Your task to perform on an android device: What's the price of the new iPhone Image 0: 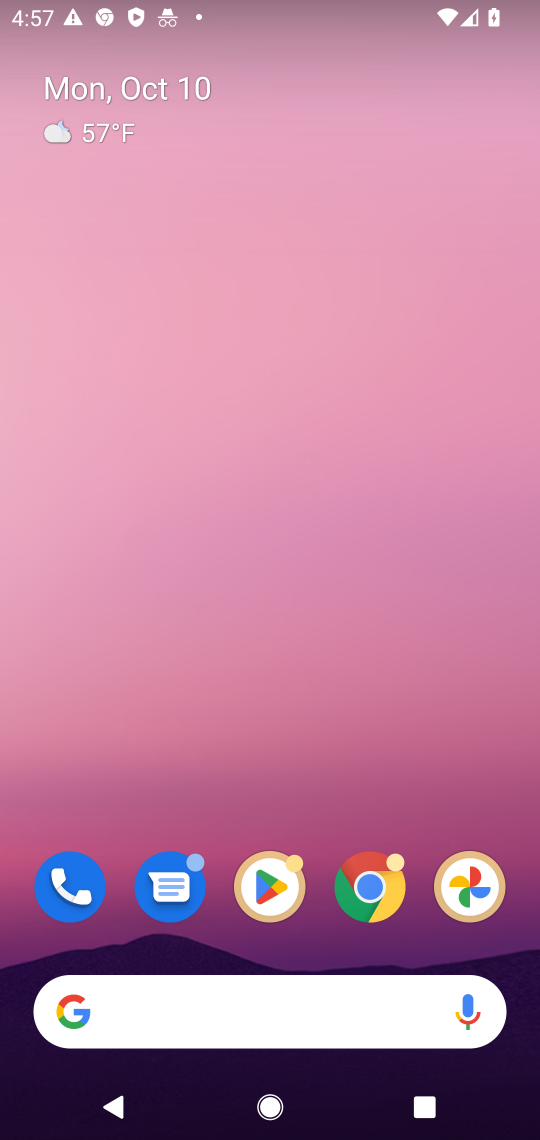
Step 0: click (376, 897)
Your task to perform on an android device: What's the price of the new iPhone Image 1: 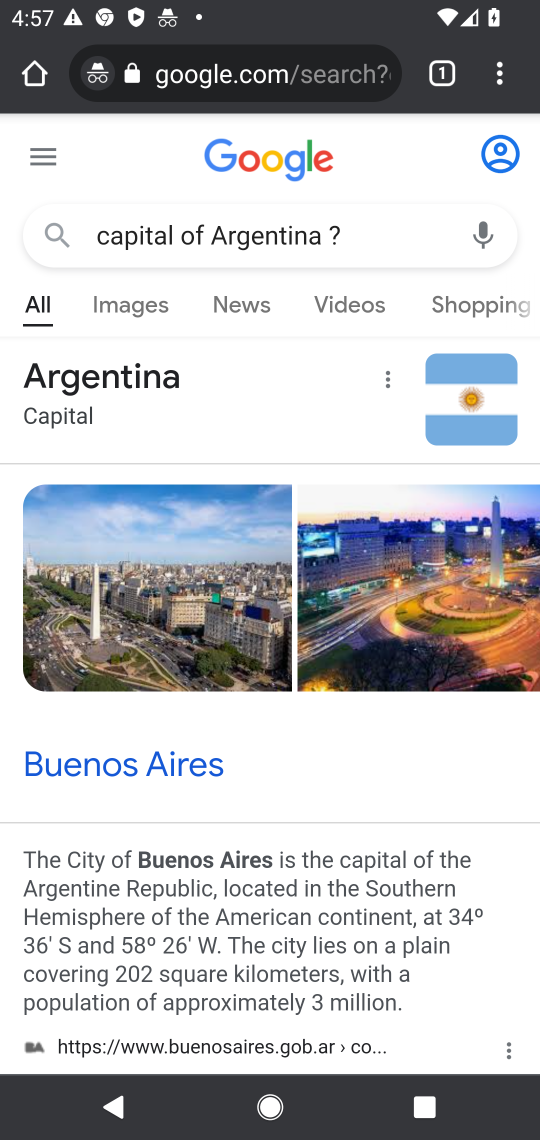
Step 1: click (284, 79)
Your task to perform on an android device: What's the price of the new iPhone Image 2: 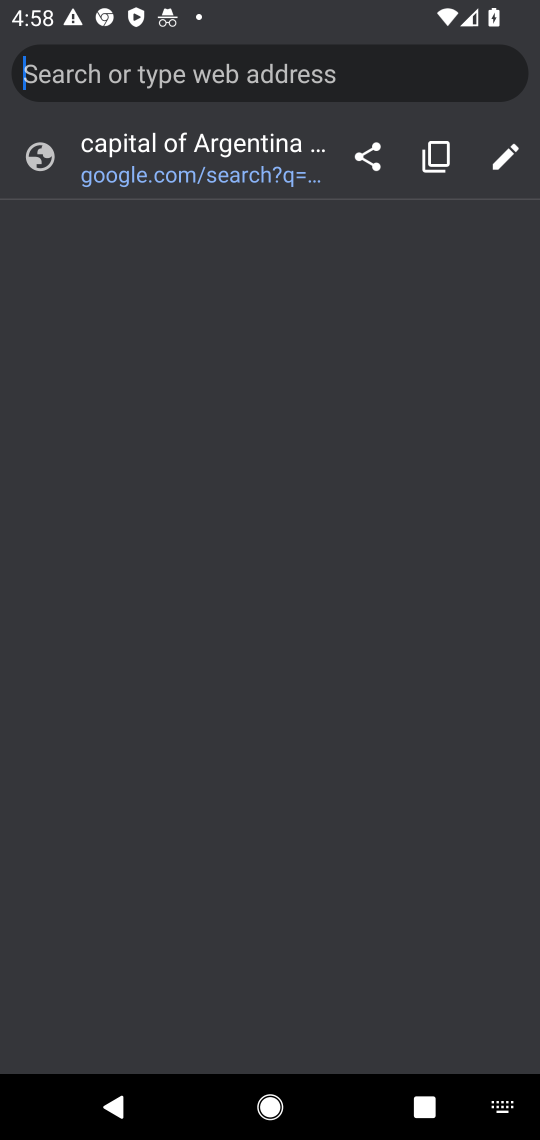
Step 2: type "price of the new iphone"
Your task to perform on an android device: What's the price of the new iPhone Image 3: 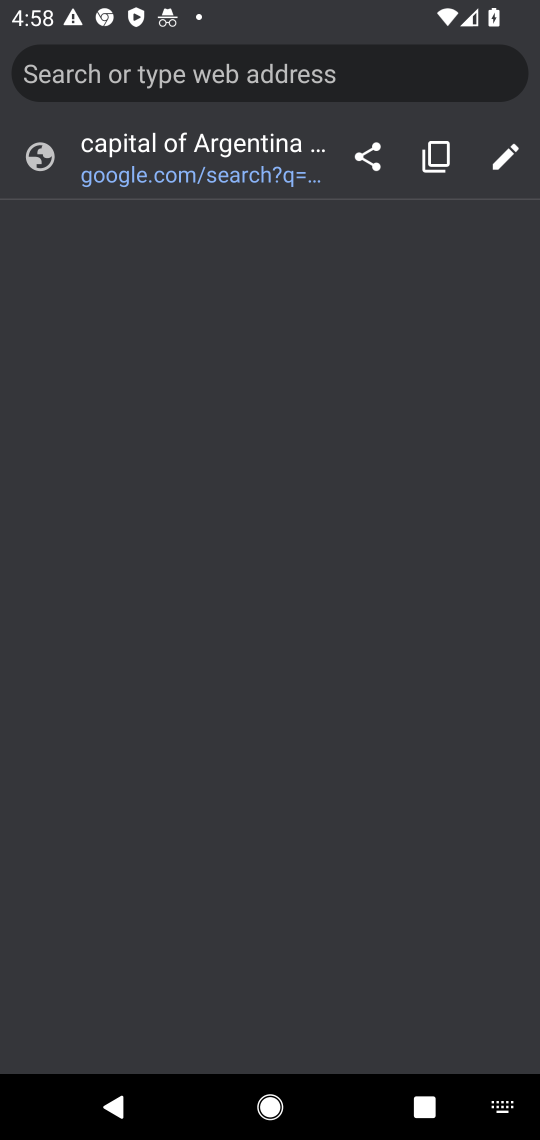
Step 3: click (230, 84)
Your task to perform on an android device: What's the price of the new iPhone Image 4: 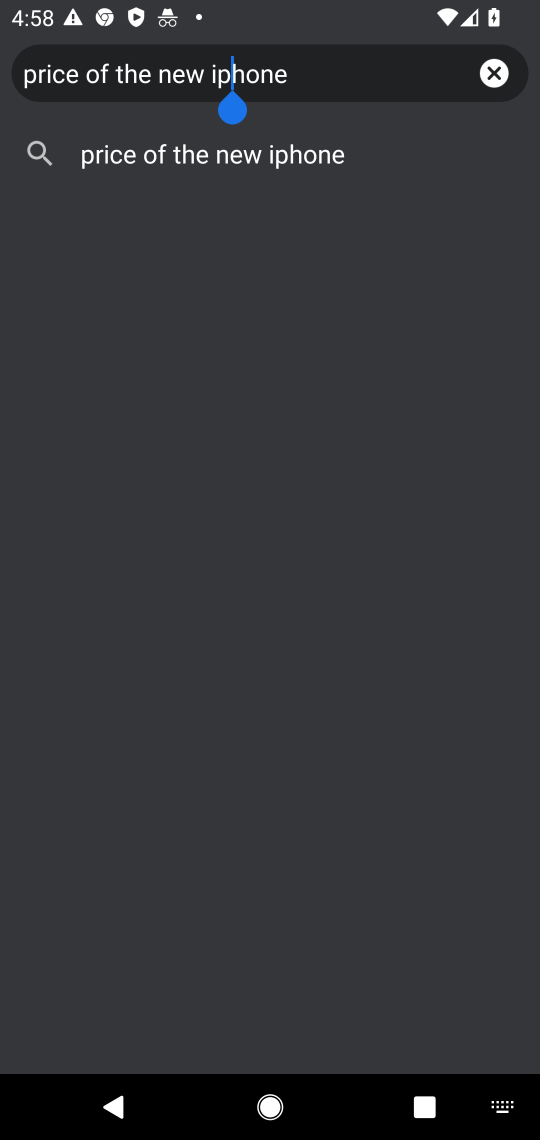
Step 4: click (227, 157)
Your task to perform on an android device: What's the price of the new iPhone Image 5: 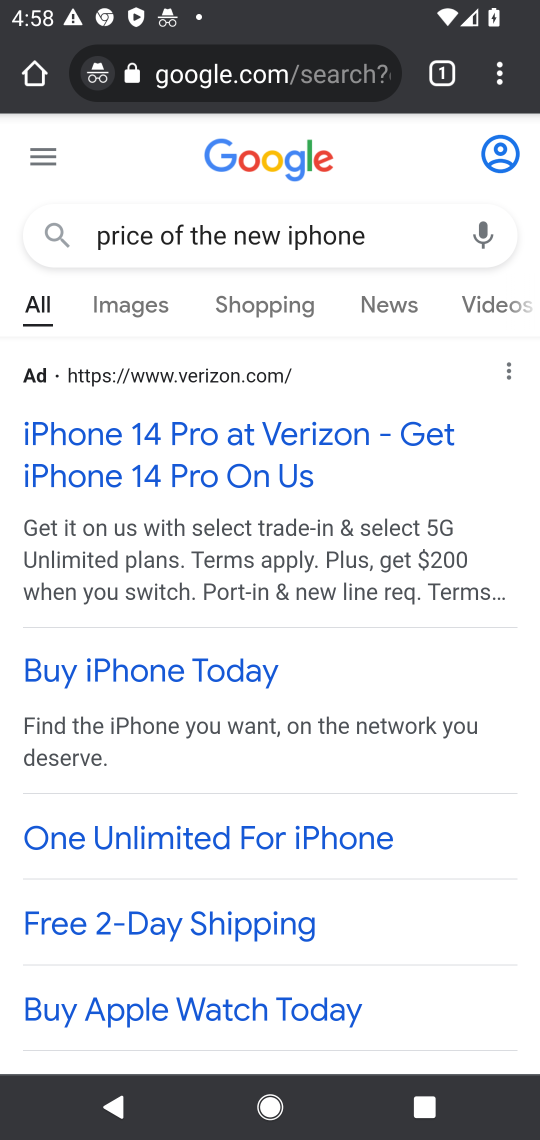
Step 5: click (307, 455)
Your task to perform on an android device: What's the price of the new iPhone Image 6: 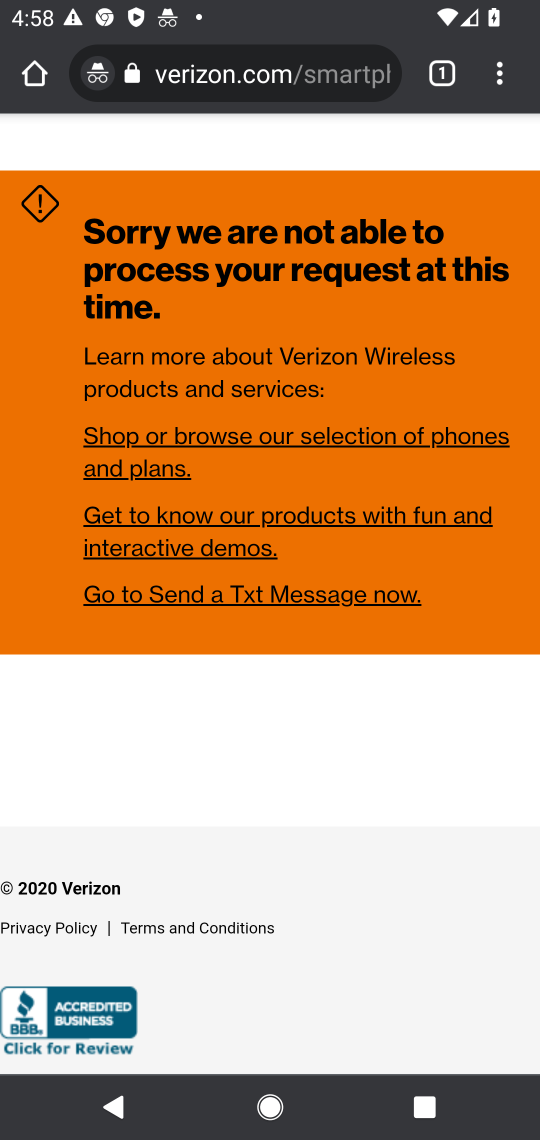
Step 6: task complete